Your task to perform on an android device: Search for flights from Buenos aires to Helsinki Image 0: 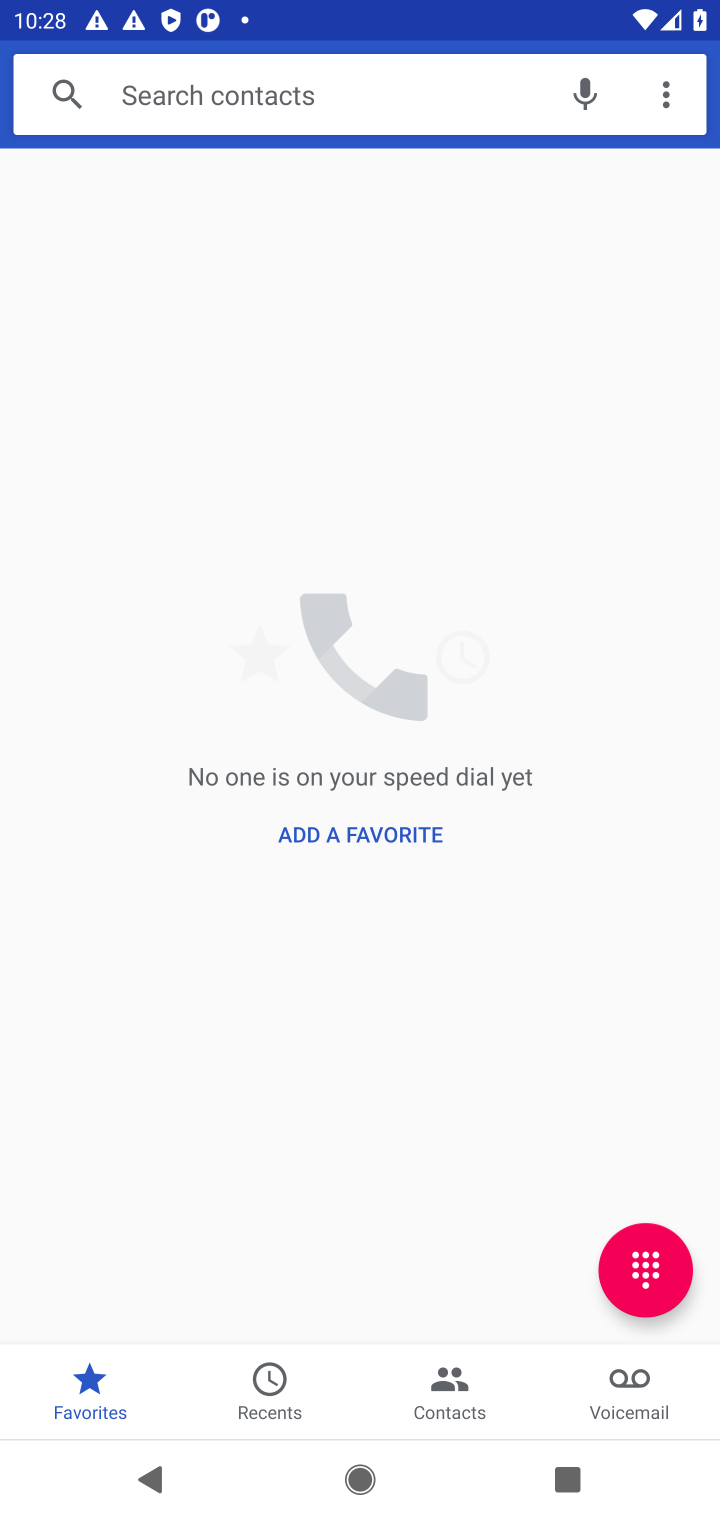
Step 0: press home button
Your task to perform on an android device: Search for flights from Buenos aires to Helsinki Image 1: 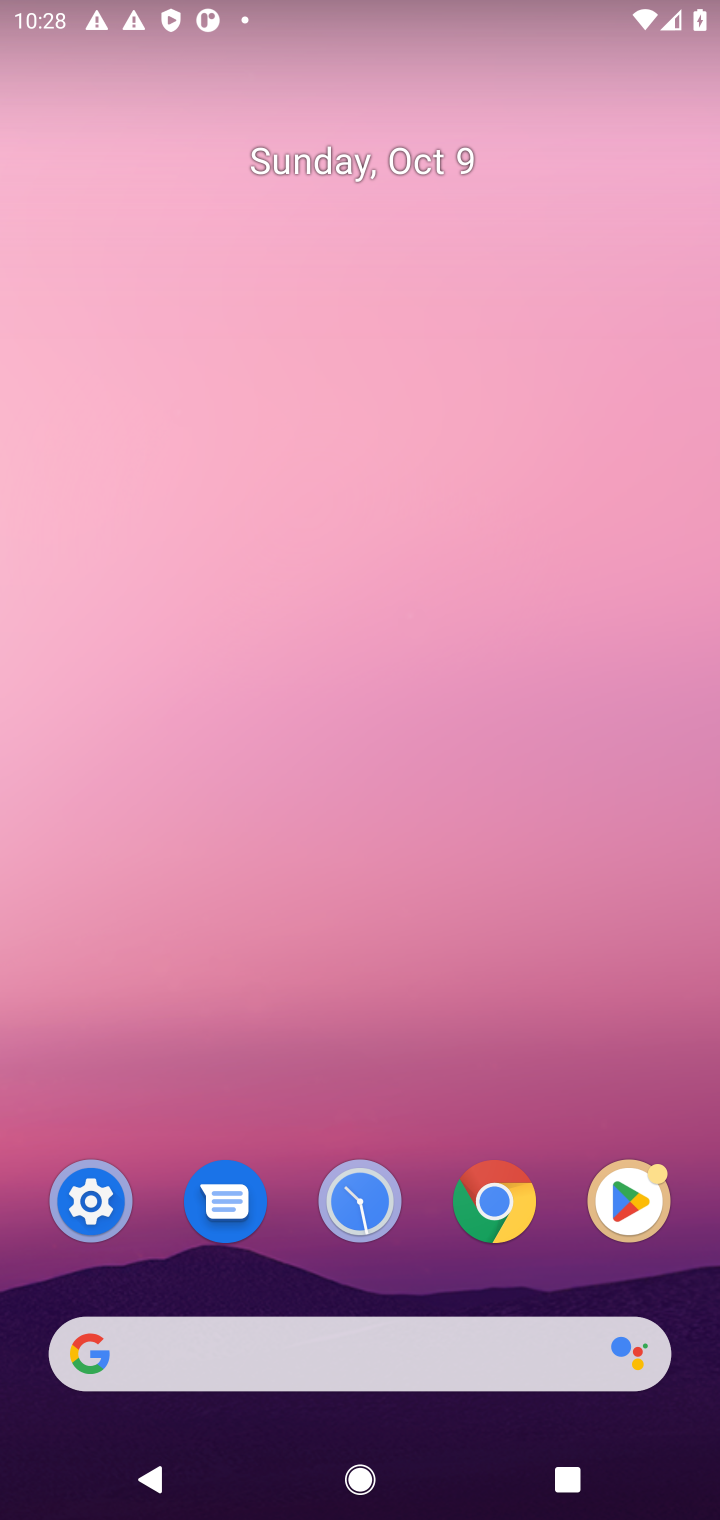
Step 1: click (499, 1231)
Your task to perform on an android device: Search for flights from Buenos aires to Helsinki Image 2: 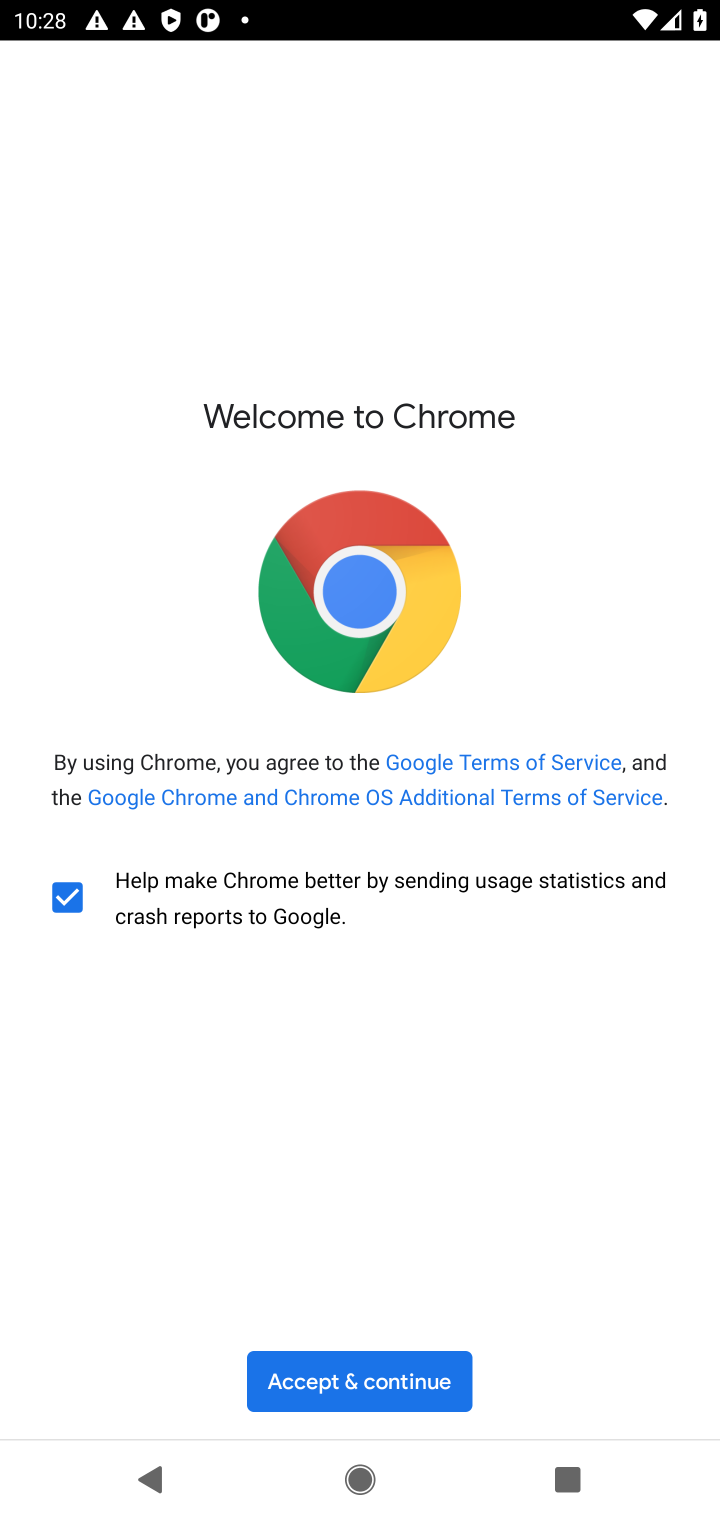
Step 2: click (388, 1374)
Your task to perform on an android device: Search for flights from Buenos aires to Helsinki Image 3: 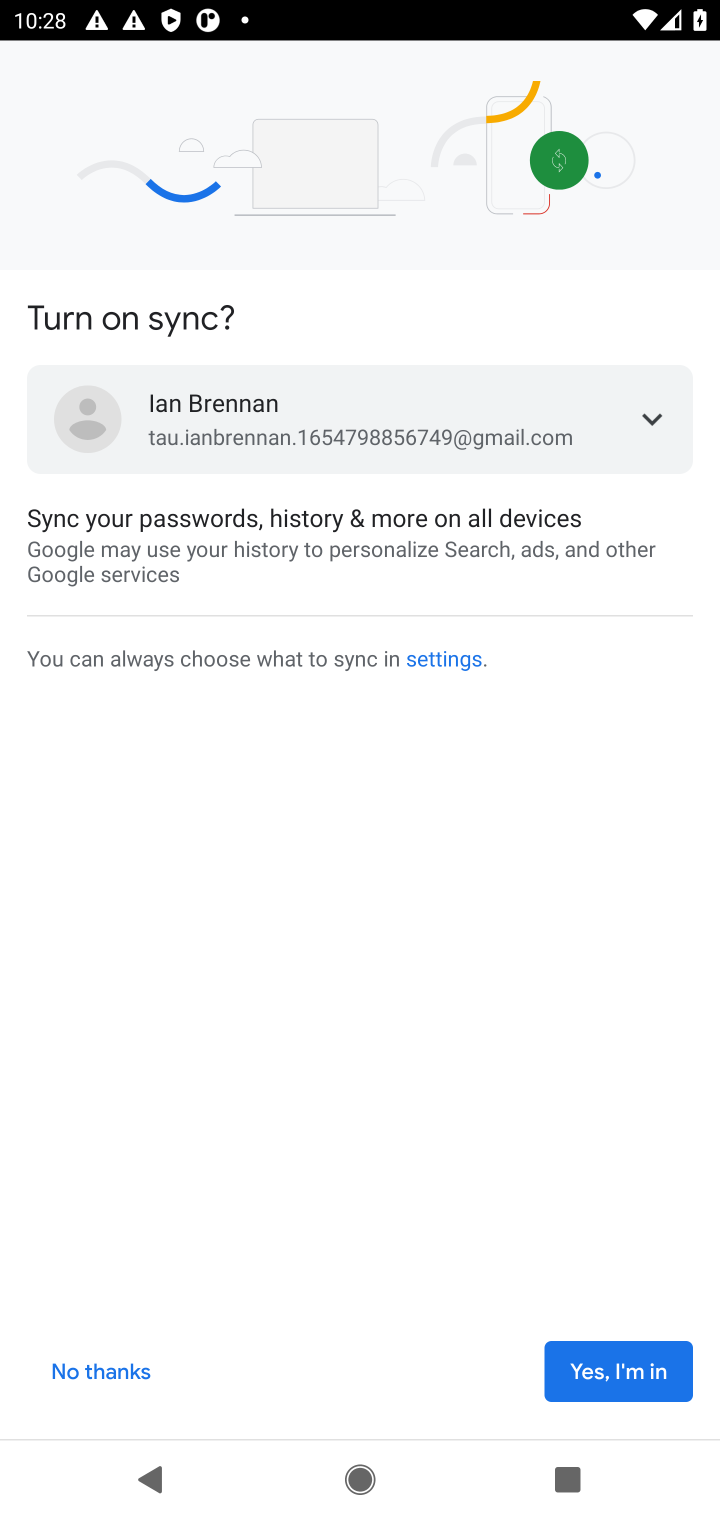
Step 3: click (586, 1370)
Your task to perform on an android device: Search for flights from Buenos aires to Helsinki Image 4: 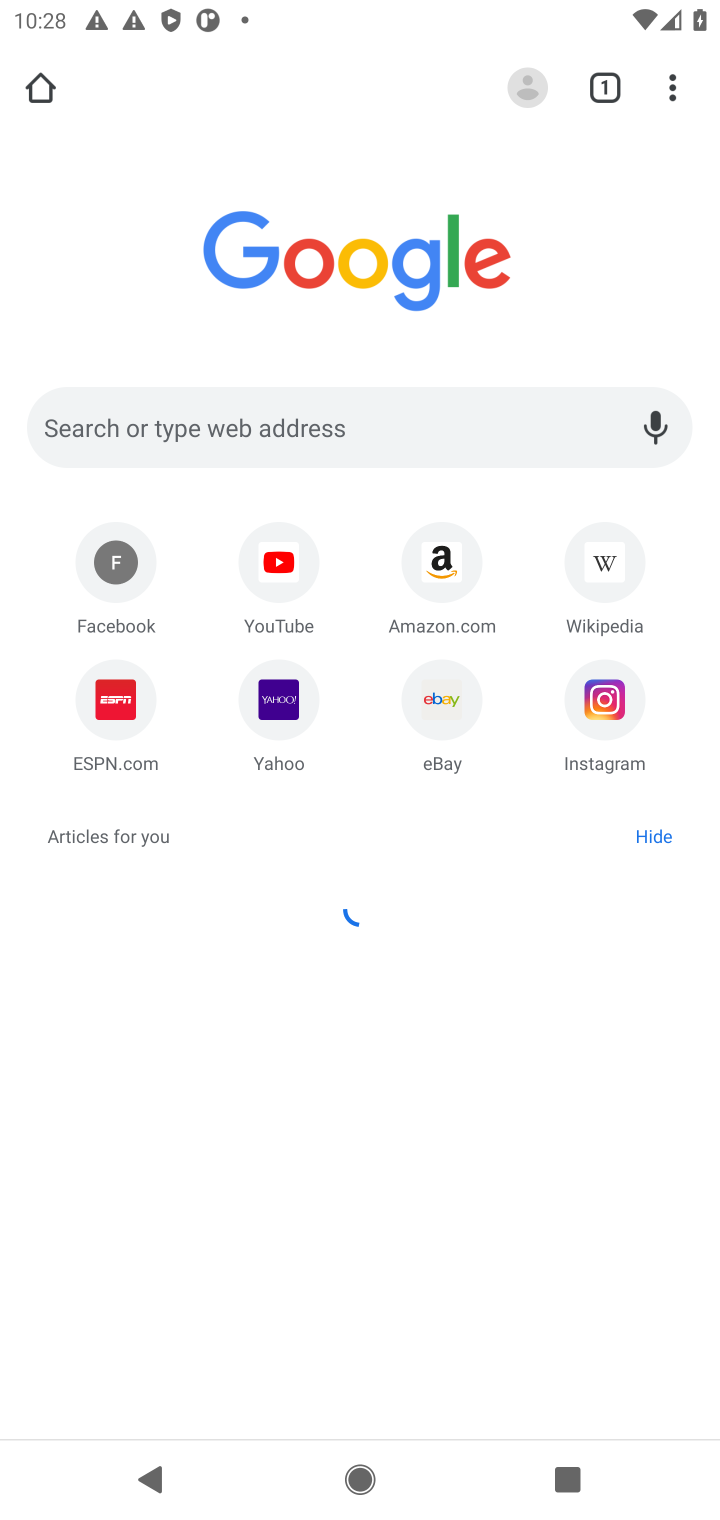
Step 4: click (200, 432)
Your task to perform on an android device: Search for flights from Buenos aires to Helsinki Image 5: 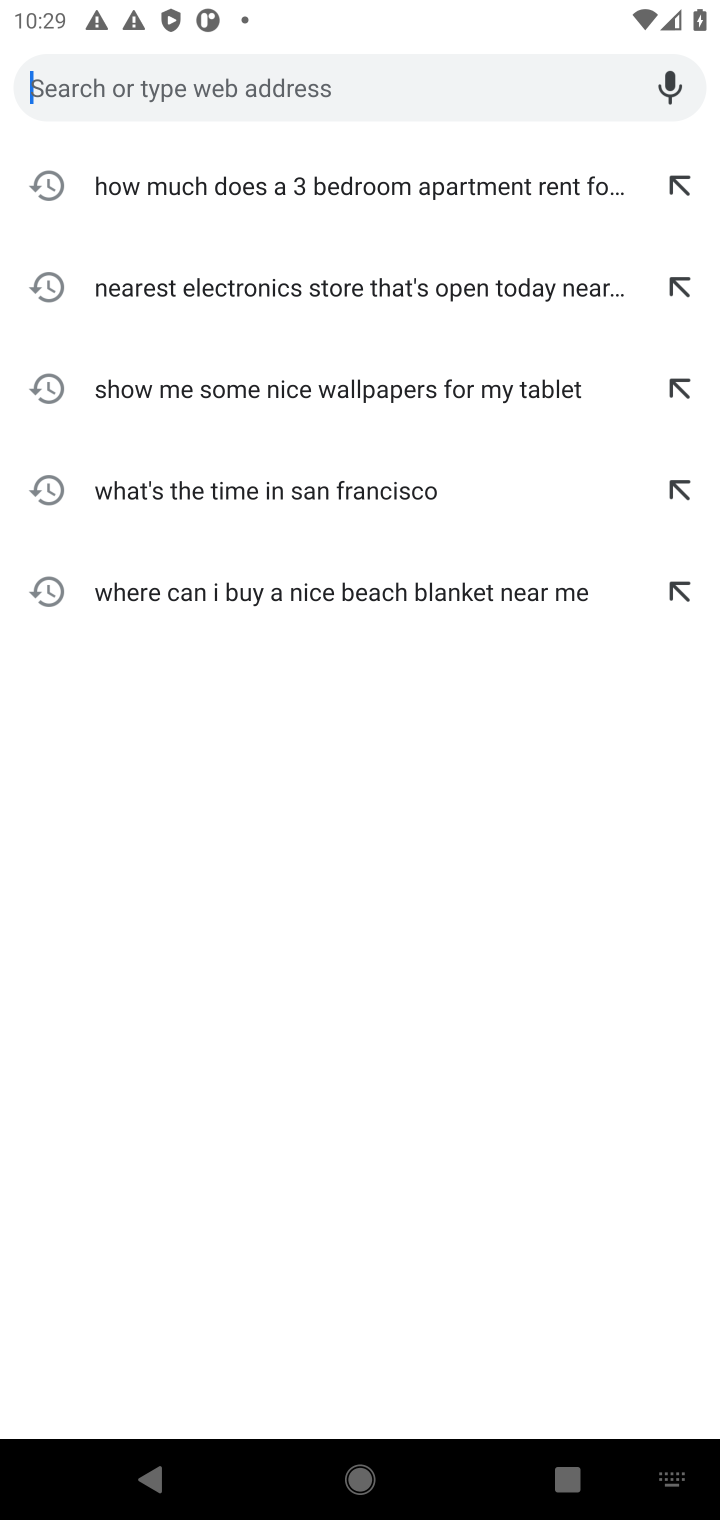
Step 5: type "flights from buenos aires to helsinki"
Your task to perform on an android device: Search for flights from Buenos aires to Helsinki Image 6: 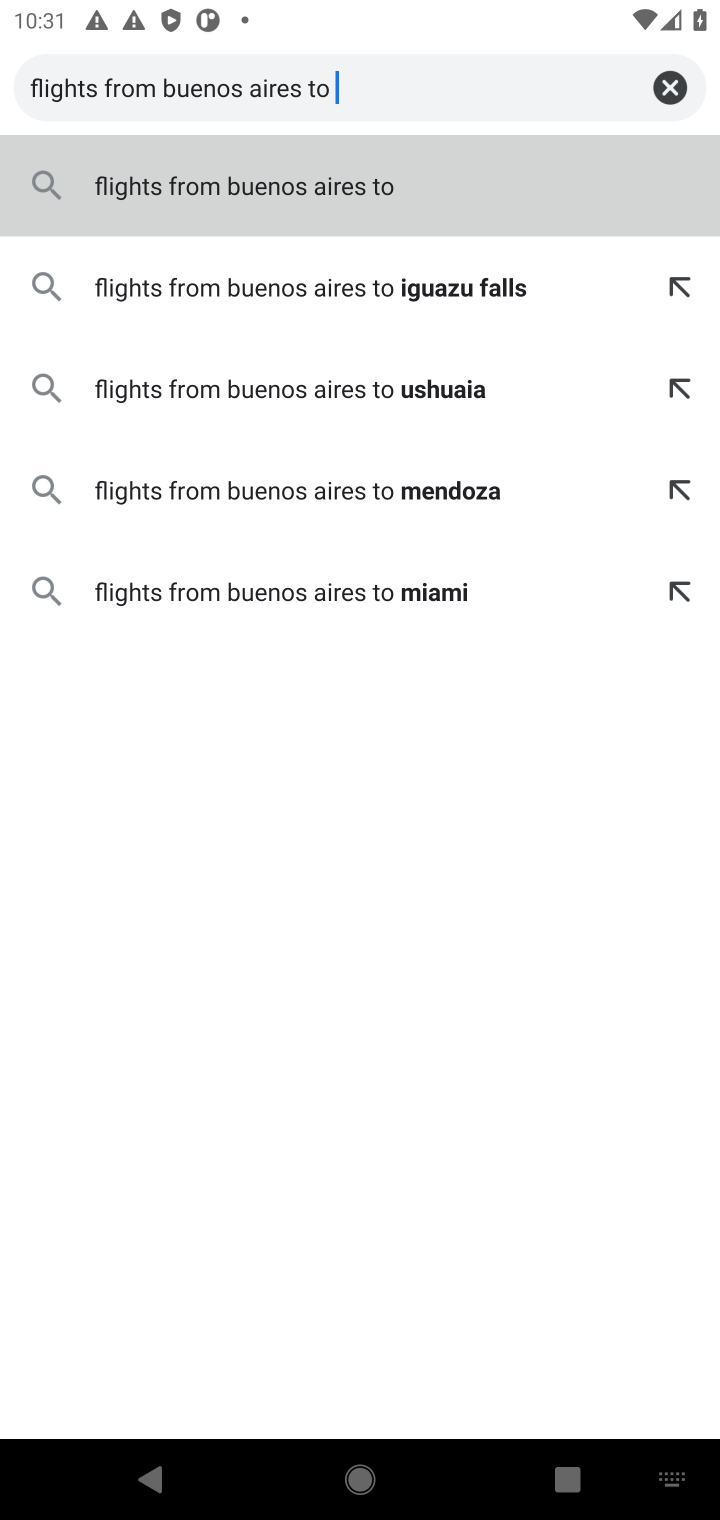
Step 6: type "helsinki"
Your task to perform on an android device: Search for flights from Buenos aires to Helsinki Image 7: 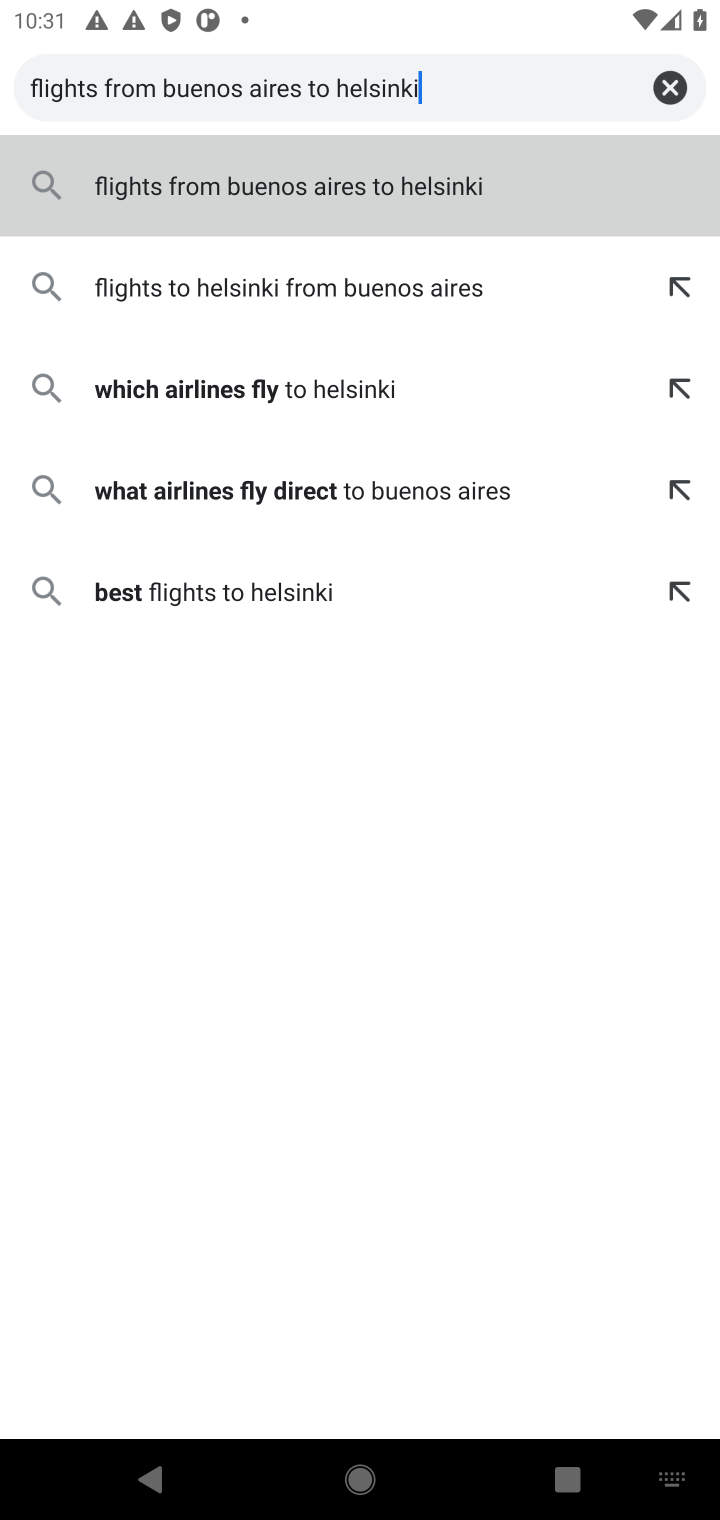
Step 7: click (299, 190)
Your task to perform on an android device: Search for flights from Buenos aires to Helsinki Image 8: 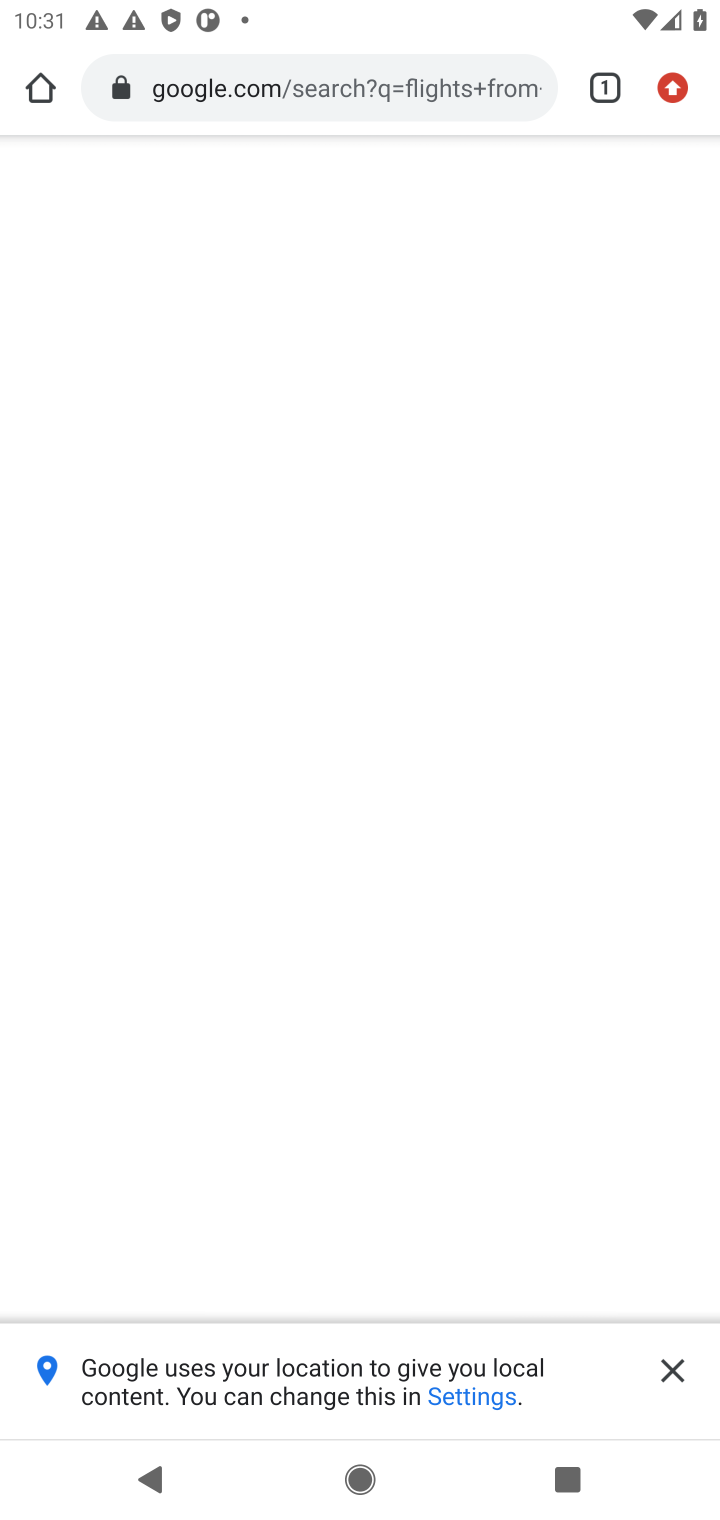
Step 8: task complete